Your task to perform on an android device: Open calendar and show me the first week of next month Image 0: 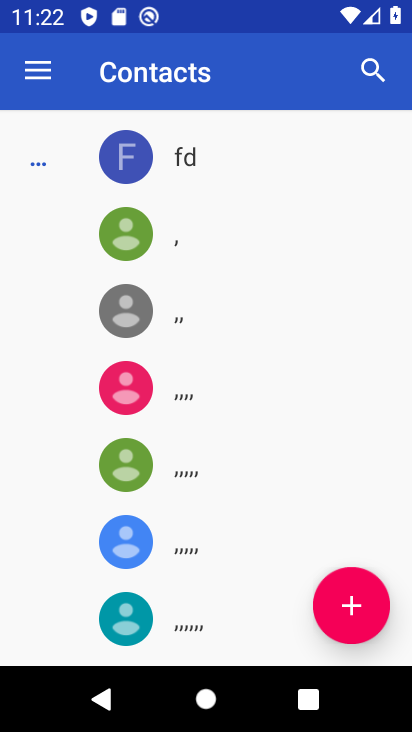
Step 0: press home button
Your task to perform on an android device: Open calendar and show me the first week of next month Image 1: 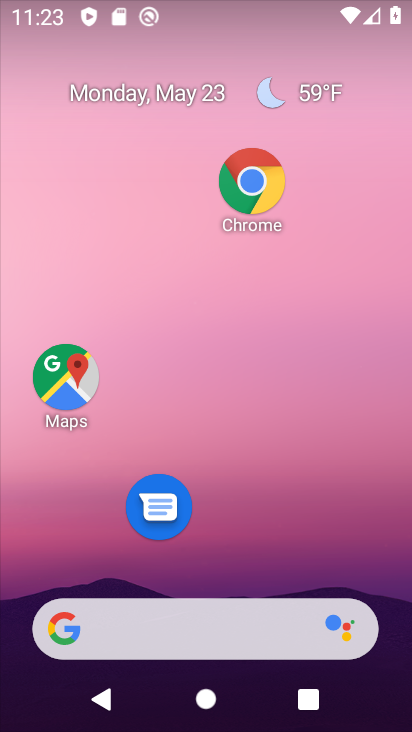
Step 1: drag from (370, 527) to (358, 213)
Your task to perform on an android device: Open calendar and show me the first week of next month Image 2: 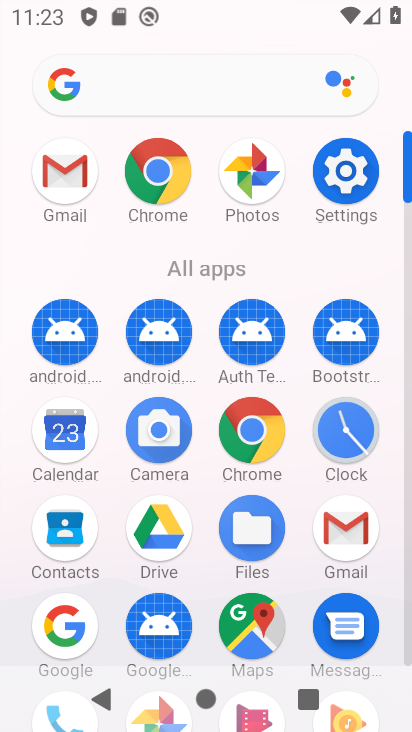
Step 2: click (72, 431)
Your task to perform on an android device: Open calendar and show me the first week of next month Image 3: 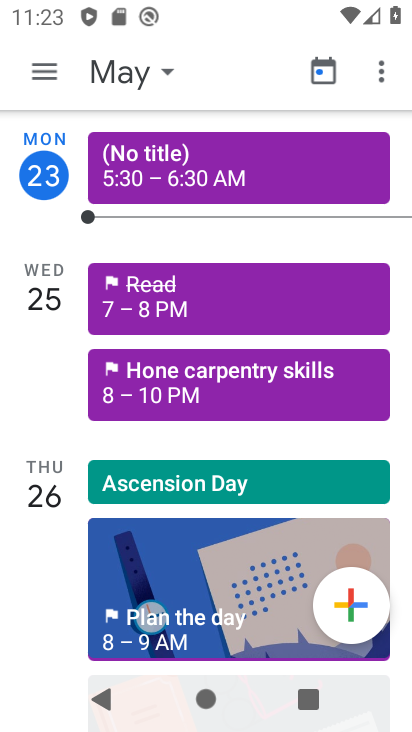
Step 3: click (42, 74)
Your task to perform on an android device: Open calendar and show me the first week of next month Image 4: 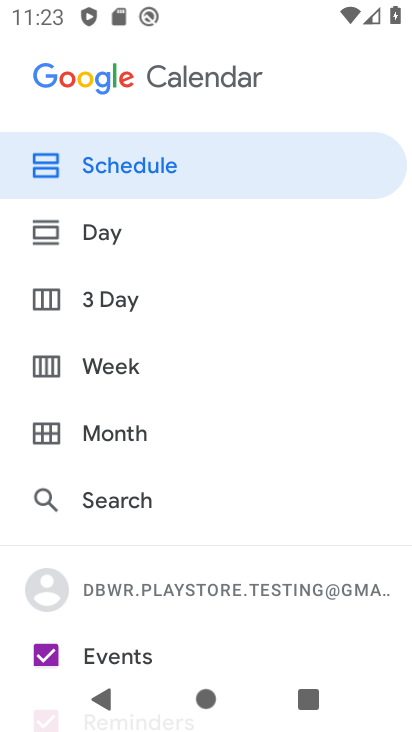
Step 4: click (90, 438)
Your task to perform on an android device: Open calendar and show me the first week of next month Image 5: 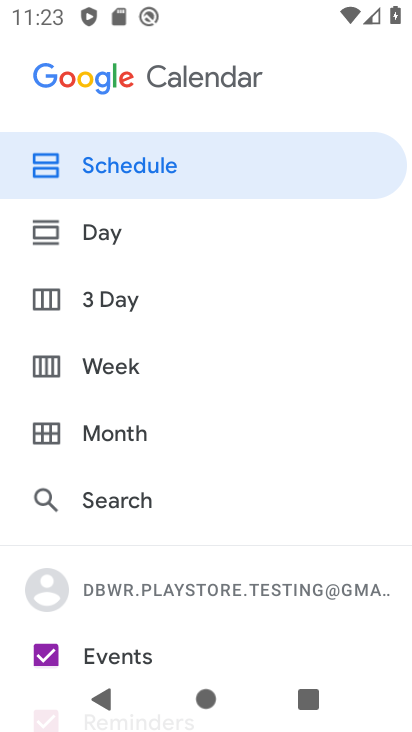
Step 5: click (113, 425)
Your task to perform on an android device: Open calendar and show me the first week of next month Image 6: 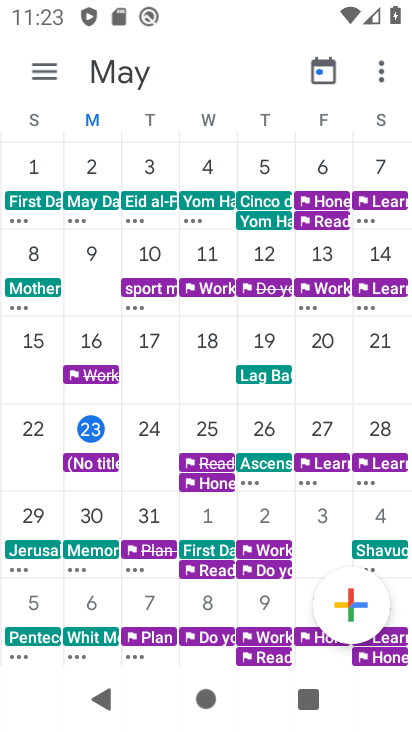
Step 6: task complete